Your task to perform on an android device: Set the phone to "Do not disturb". Image 0: 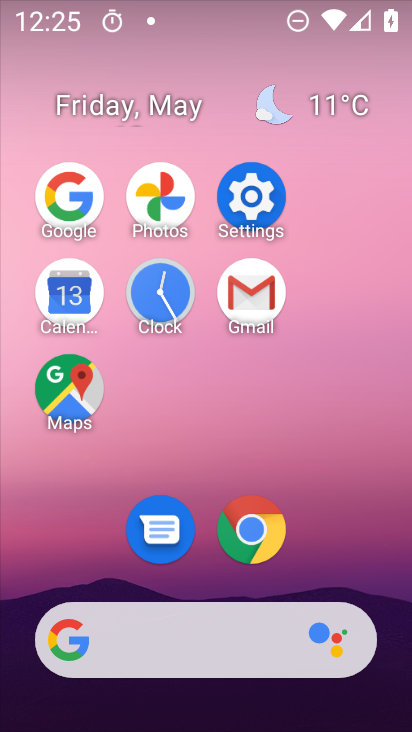
Step 0: click (279, 212)
Your task to perform on an android device: Set the phone to "Do not disturb". Image 1: 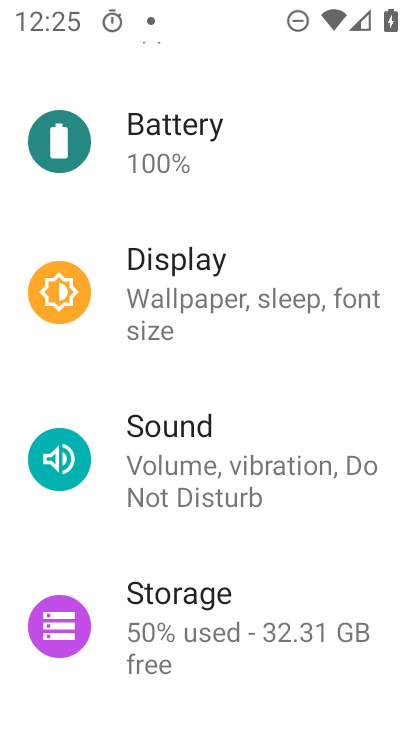
Step 1: click (258, 459)
Your task to perform on an android device: Set the phone to "Do not disturb". Image 2: 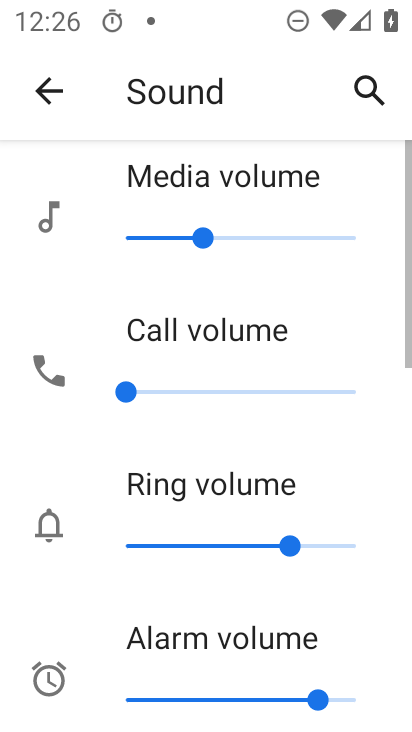
Step 2: task complete